Your task to perform on an android device: turn off airplane mode Image 0: 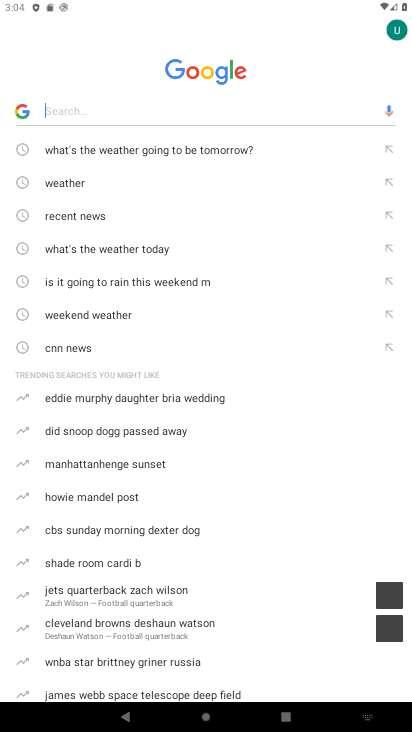
Step 0: press home button
Your task to perform on an android device: turn off airplane mode Image 1: 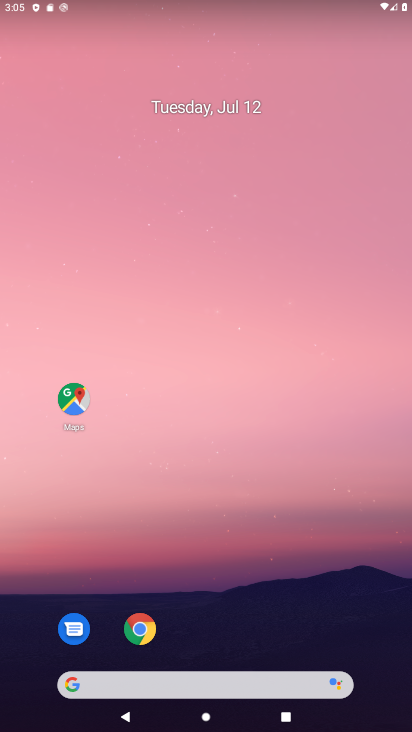
Step 1: drag from (209, 650) to (217, 162)
Your task to perform on an android device: turn off airplane mode Image 2: 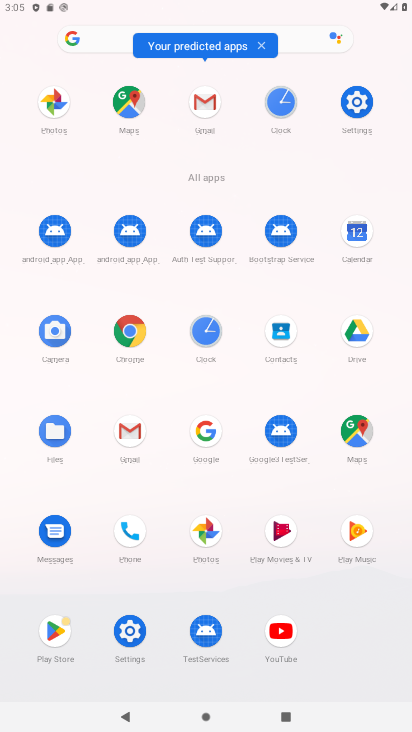
Step 2: click (133, 631)
Your task to perform on an android device: turn off airplane mode Image 3: 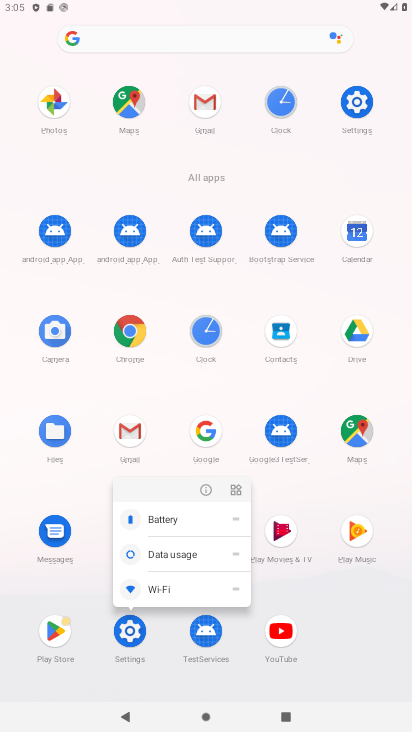
Step 3: click (133, 631)
Your task to perform on an android device: turn off airplane mode Image 4: 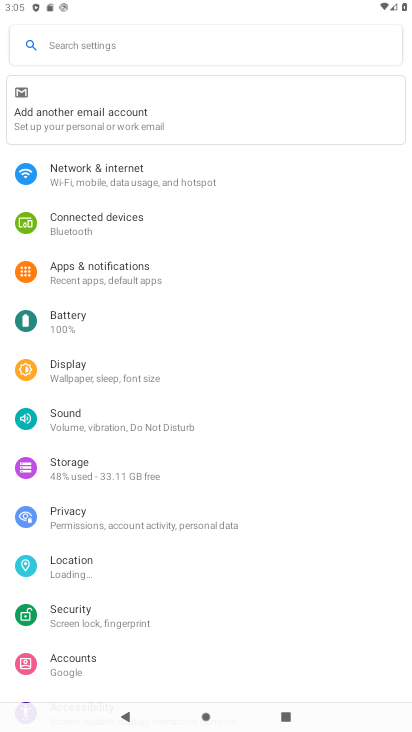
Step 4: click (113, 178)
Your task to perform on an android device: turn off airplane mode Image 5: 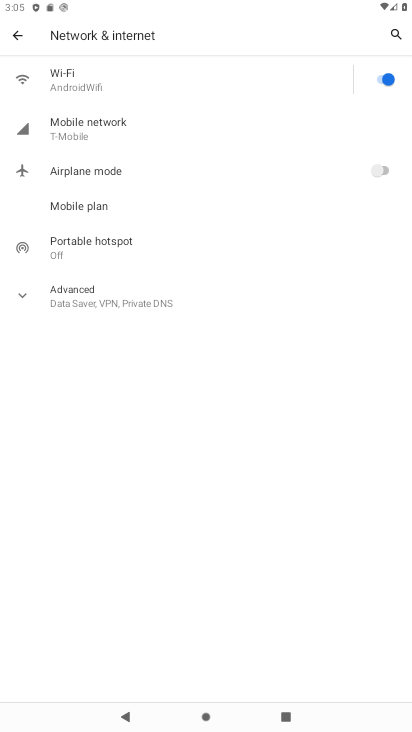
Step 5: task complete